Your task to perform on an android device: open a bookmark in the chrome app Image 0: 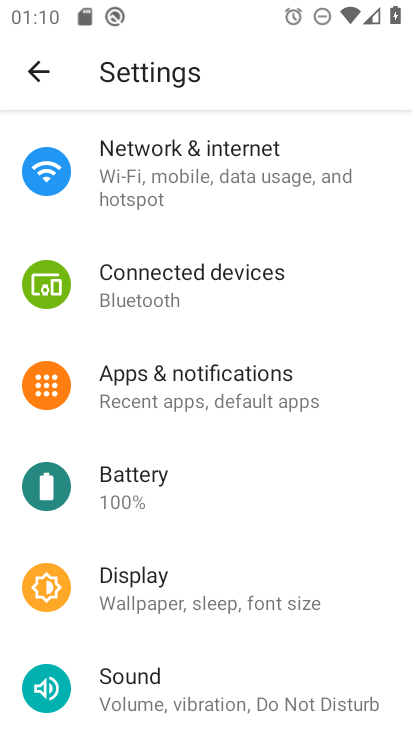
Step 0: press home button
Your task to perform on an android device: open a bookmark in the chrome app Image 1: 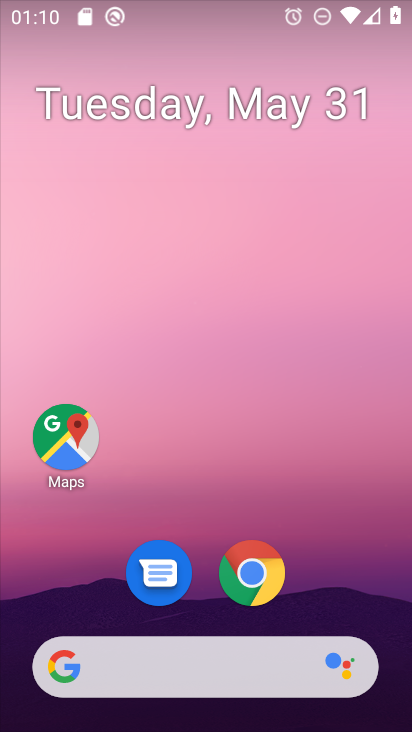
Step 1: click (237, 562)
Your task to perform on an android device: open a bookmark in the chrome app Image 2: 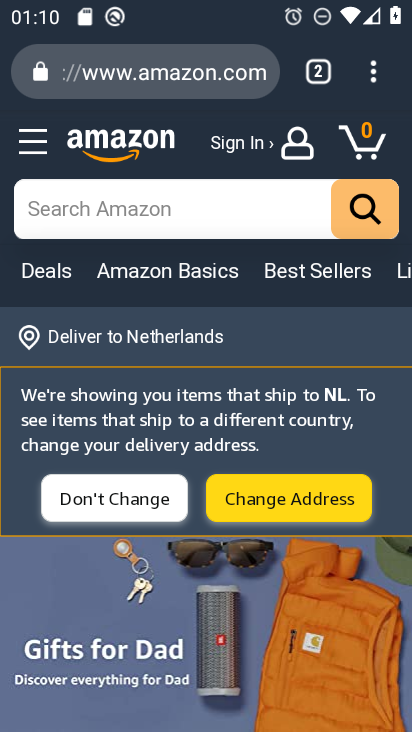
Step 2: click (360, 76)
Your task to perform on an android device: open a bookmark in the chrome app Image 3: 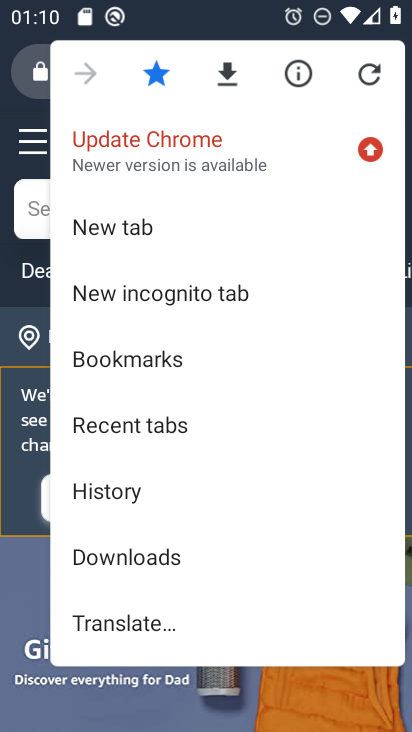
Step 3: drag from (177, 519) to (251, 31)
Your task to perform on an android device: open a bookmark in the chrome app Image 4: 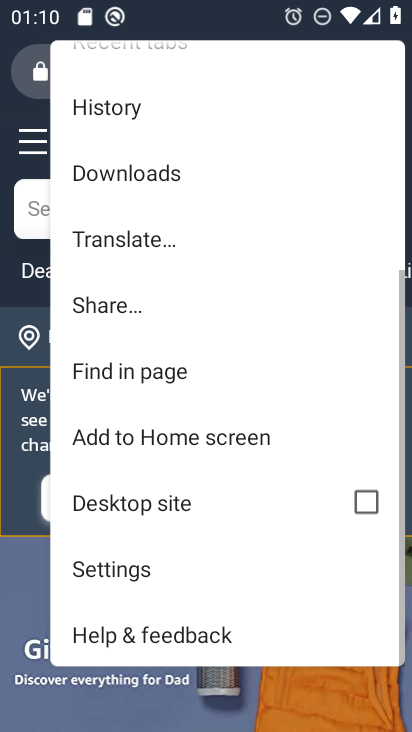
Step 4: drag from (255, 487) to (255, 729)
Your task to perform on an android device: open a bookmark in the chrome app Image 5: 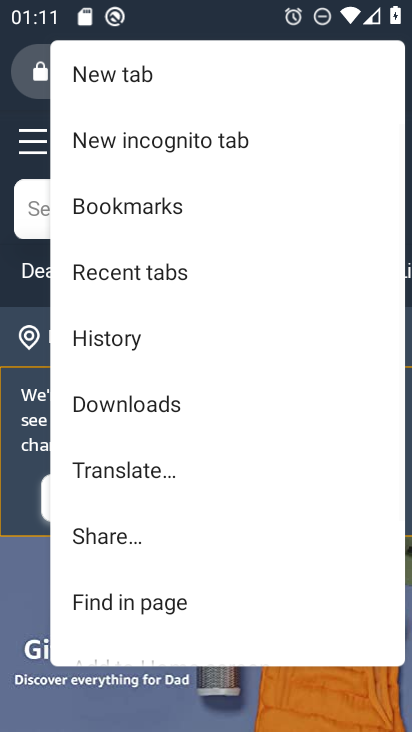
Step 5: click (219, 190)
Your task to perform on an android device: open a bookmark in the chrome app Image 6: 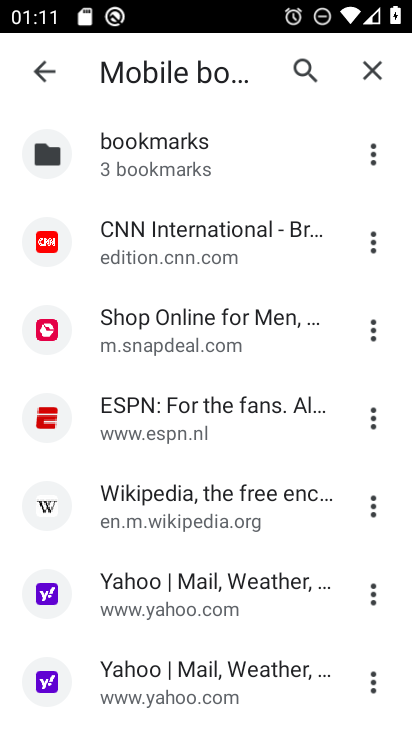
Step 6: click (196, 494)
Your task to perform on an android device: open a bookmark in the chrome app Image 7: 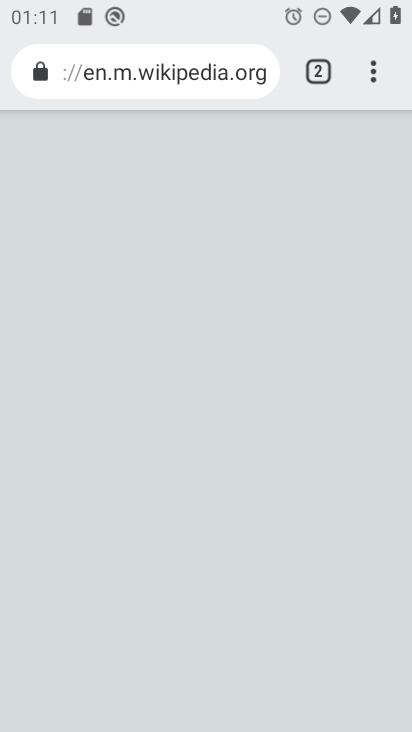
Step 7: task complete